Your task to perform on an android device: Open CNN.com Image 0: 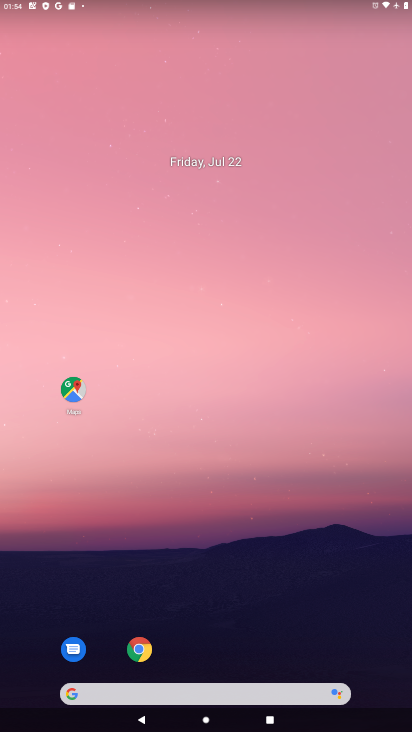
Step 0: drag from (290, 566) to (247, 0)
Your task to perform on an android device: Open CNN.com Image 1: 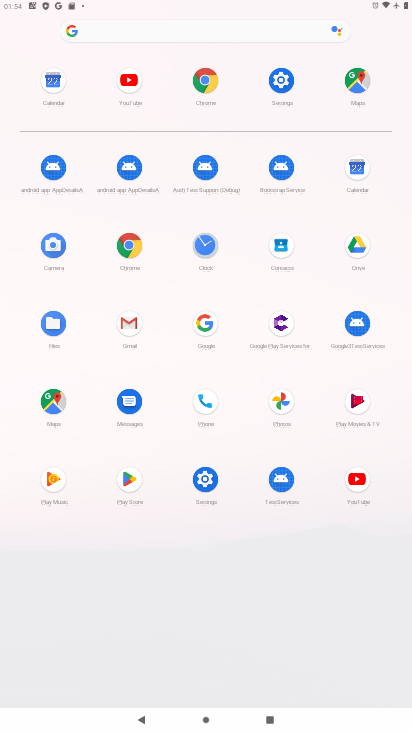
Step 1: click (130, 250)
Your task to perform on an android device: Open CNN.com Image 2: 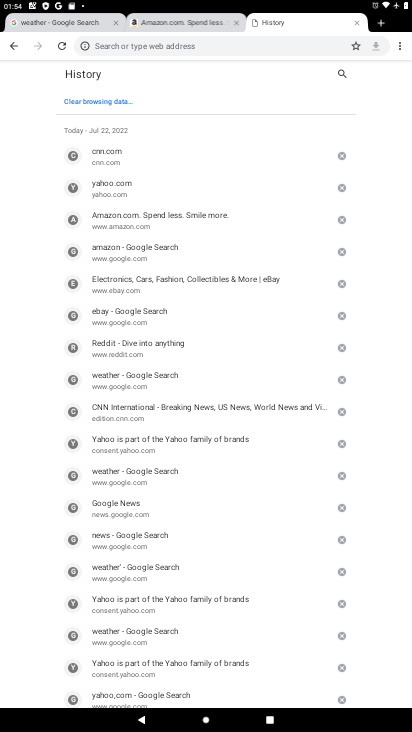
Step 2: click (236, 47)
Your task to perform on an android device: Open CNN.com Image 3: 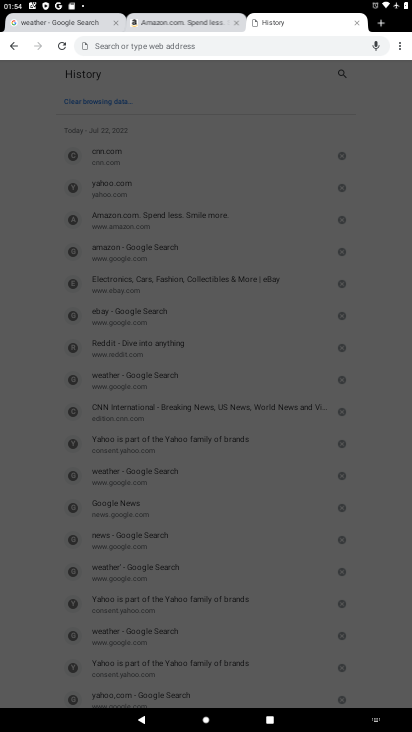
Step 3: type "cnn.com"
Your task to perform on an android device: Open CNN.com Image 4: 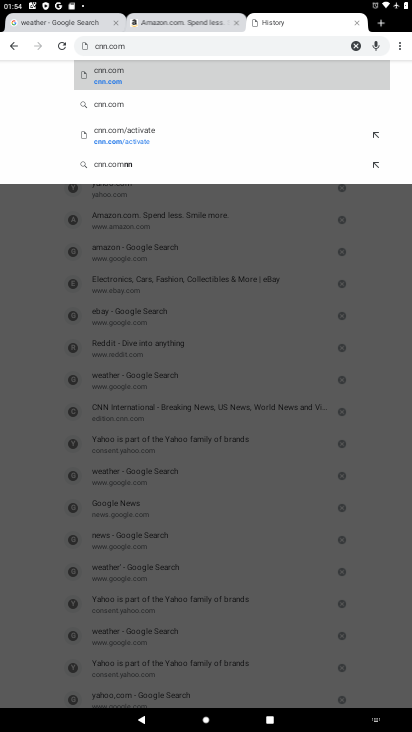
Step 4: click (97, 72)
Your task to perform on an android device: Open CNN.com Image 5: 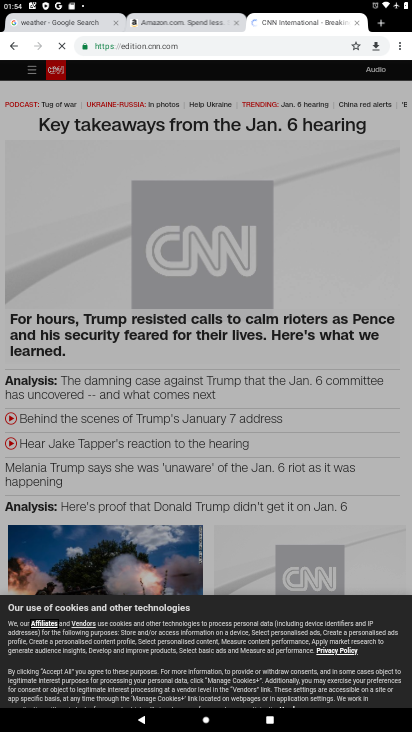
Step 5: task complete